Your task to perform on an android device: Open Youtube and go to "Your channel" Image 0: 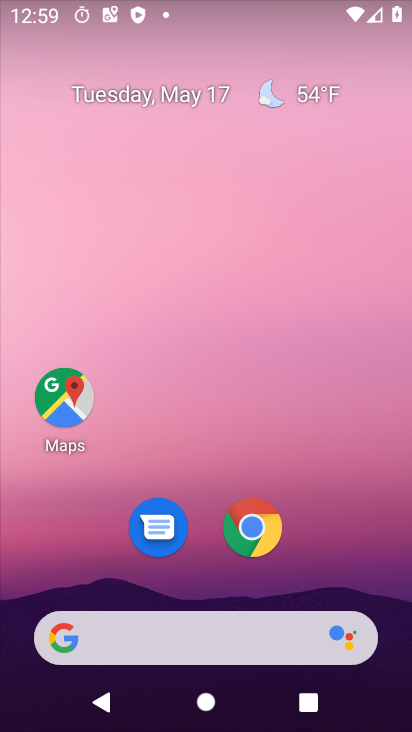
Step 0: press home button
Your task to perform on an android device: Open Youtube and go to "Your channel" Image 1: 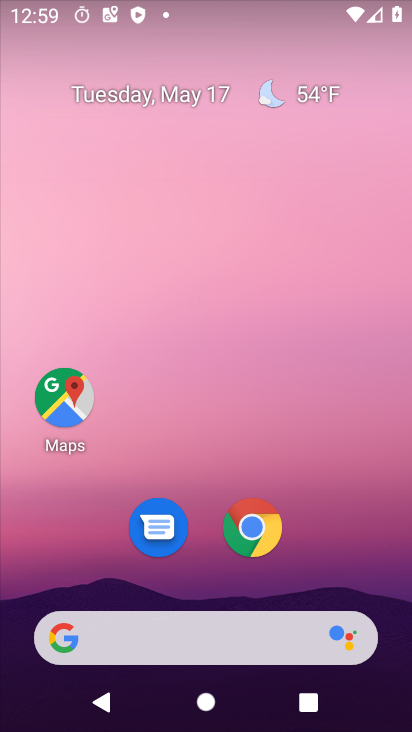
Step 1: drag from (295, 659) to (210, 202)
Your task to perform on an android device: Open Youtube and go to "Your channel" Image 2: 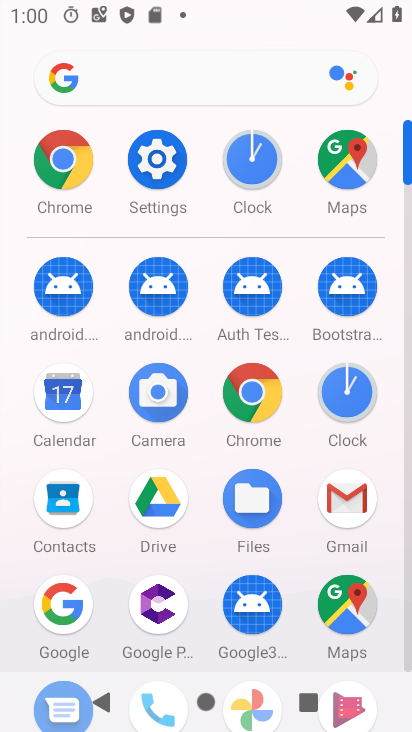
Step 2: drag from (300, 555) to (222, 295)
Your task to perform on an android device: Open Youtube and go to "Your channel" Image 3: 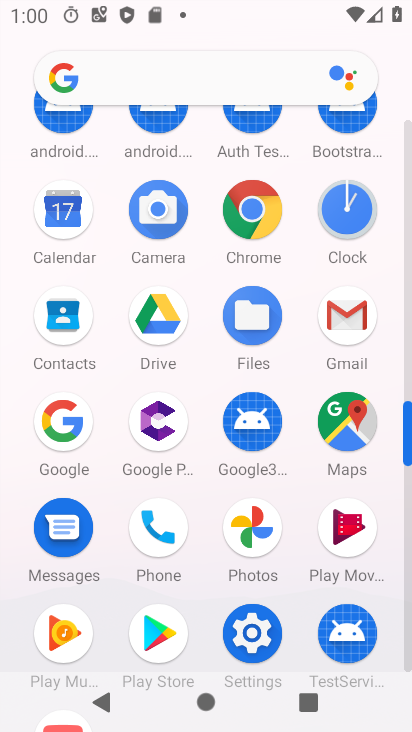
Step 3: drag from (121, 517) to (100, 409)
Your task to perform on an android device: Open Youtube and go to "Your channel" Image 4: 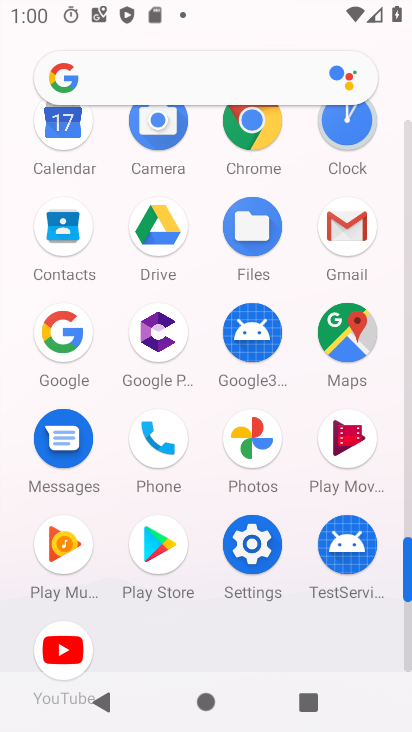
Step 4: click (68, 654)
Your task to perform on an android device: Open Youtube and go to "Your channel" Image 5: 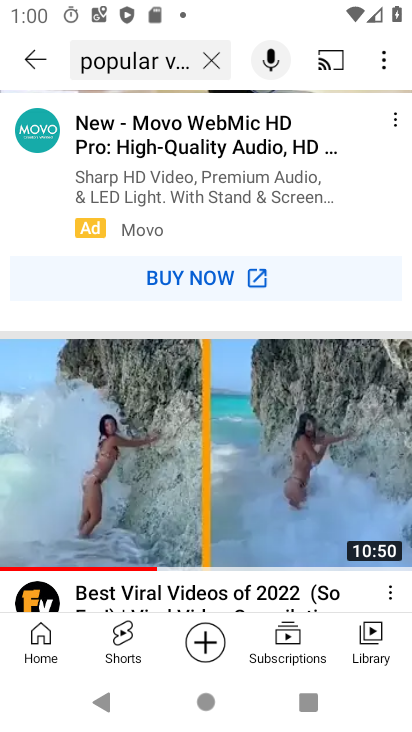
Step 5: click (369, 69)
Your task to perform on an android device: Open Youtube and go to "Your channel" Image 6: 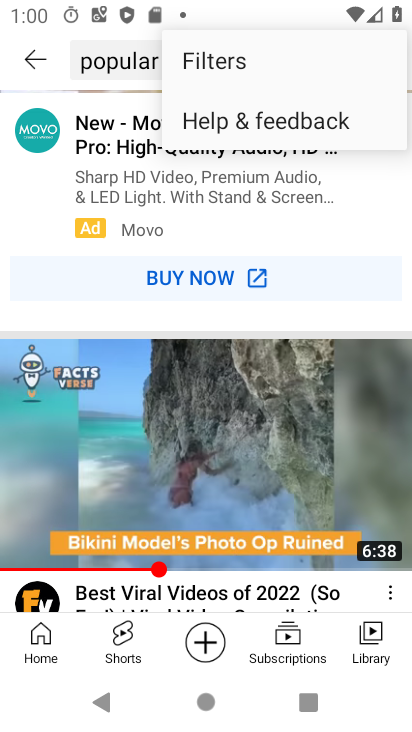
Step 6: click (43, 57)
Your task to perform on an android device: Open Youtube and go to "Your channel" Image 7: 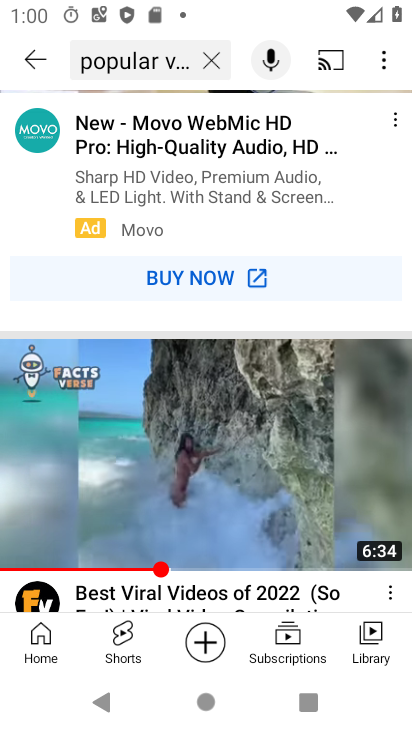
Step 7: click (40, 58)
Your task to perform on an android device: Open Youtube and go to "Your channel" Image 8: 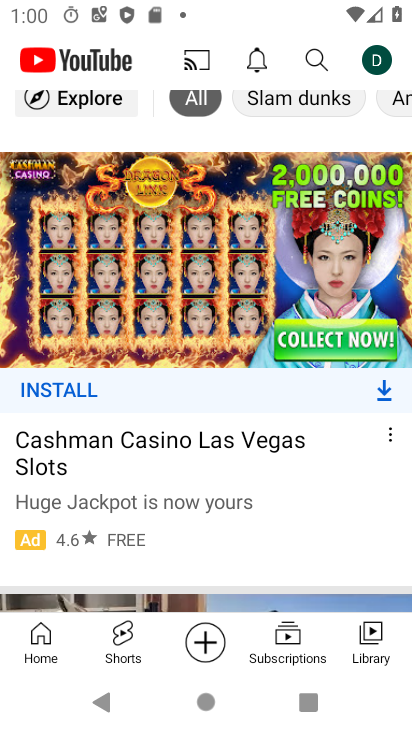
Step 8: click (379, 60)
Your task to perform on an android device: Open Youtube and go to "Your channel" Image 9: 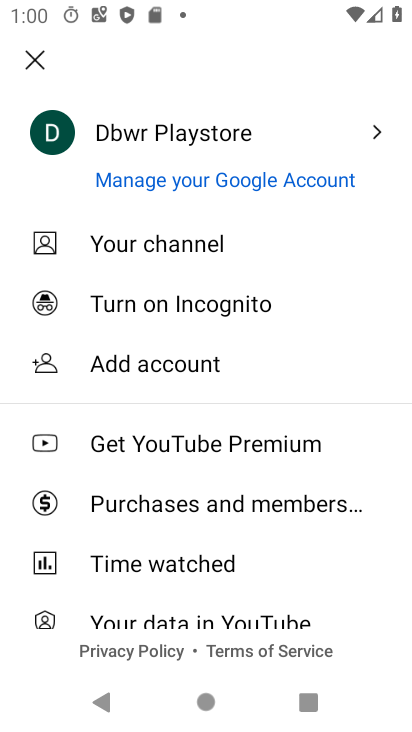
Step 9: click (163, 240)
Your task to perform on an android device: Open Youtube and go to "Your channel" Image 10: 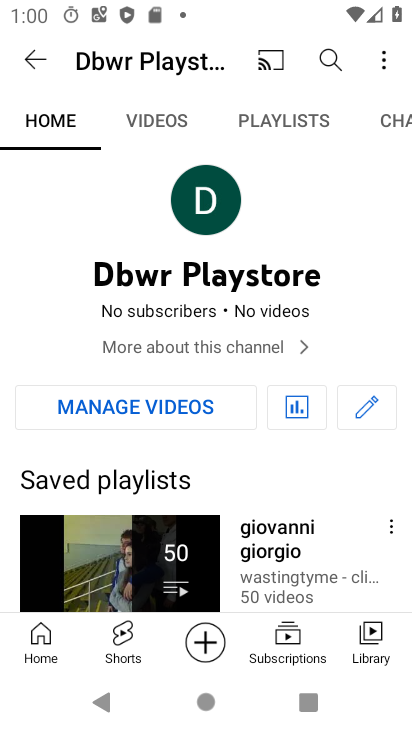
Step 10: task complete